Your task to perform on an android device: Show me popular games on the Play Store Image 0: 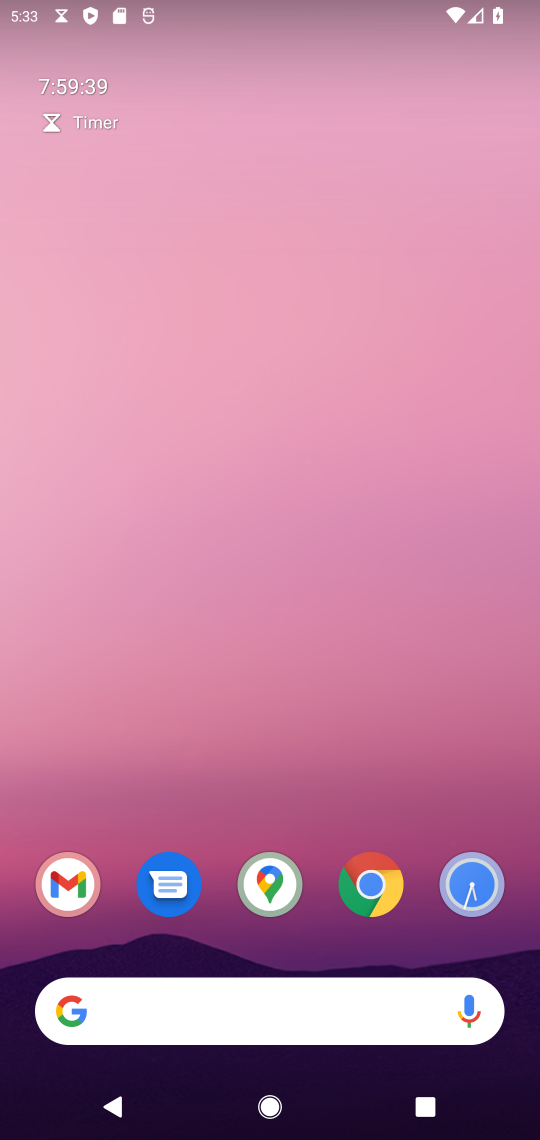
Step 0: drag from (328, 838) to (285, 51)
Your task to perform on an android device: Show me popular games on the Play Store Image 1: 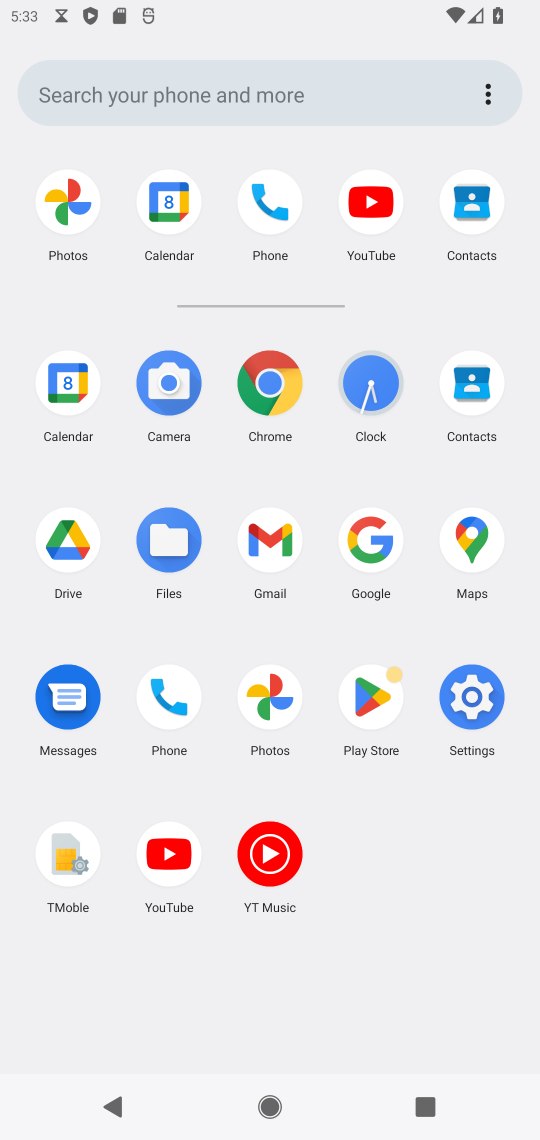
Step 1: click (358, 720)
Your task to perform on an android device: Show me popular games on the Play Store Image 2: 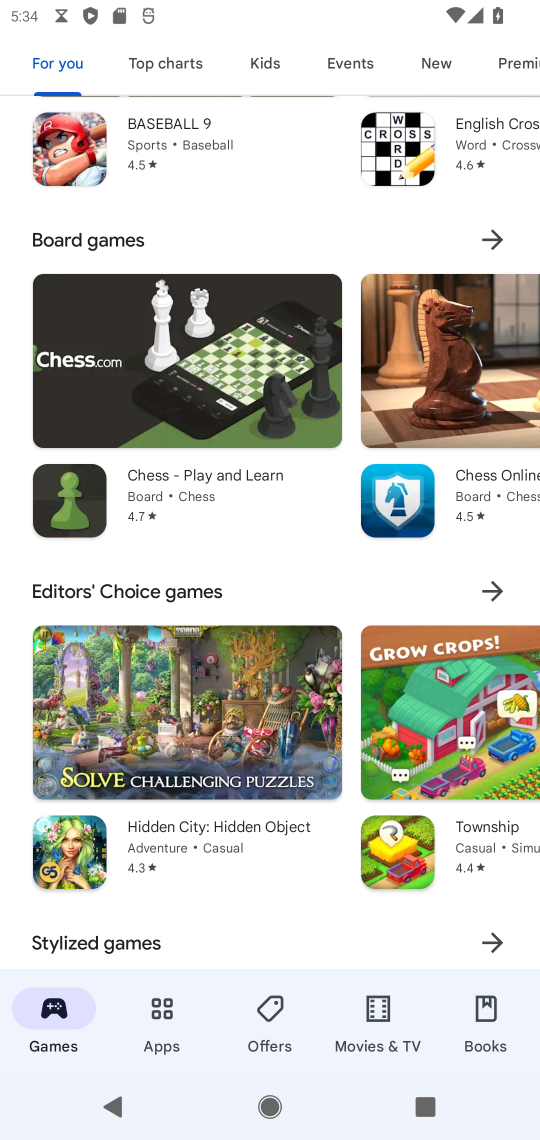
Step 2: drag from (268, 941) to (251, 420)
Your task to perform on an android device: Show me popular games on the Play Store Image 3: 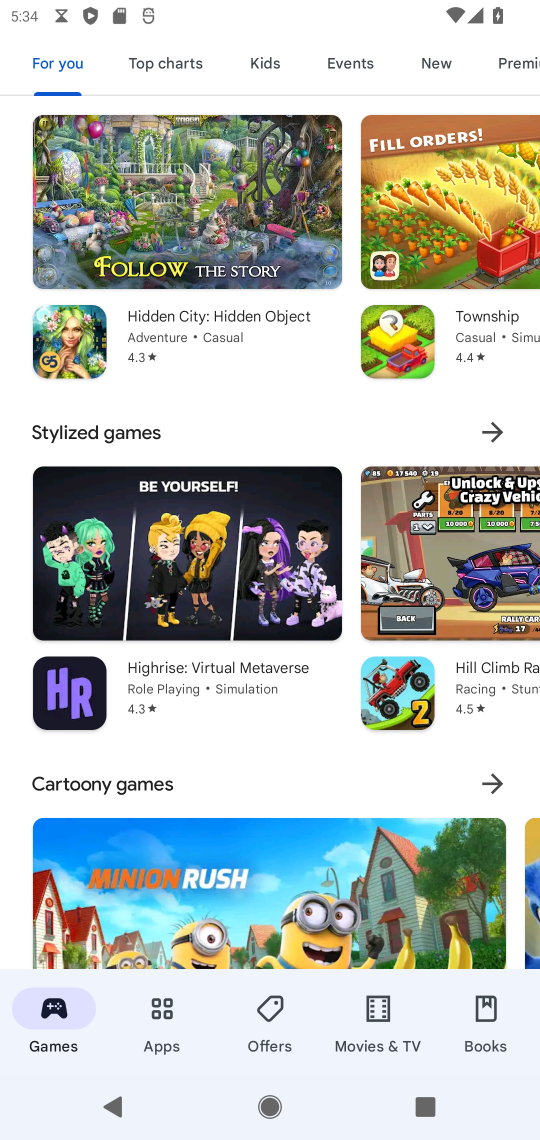
Step 3: drag from (307, 769) to (253, 132)
Your task to perform on an android device: Show me popular games on the Play Store Image 4: 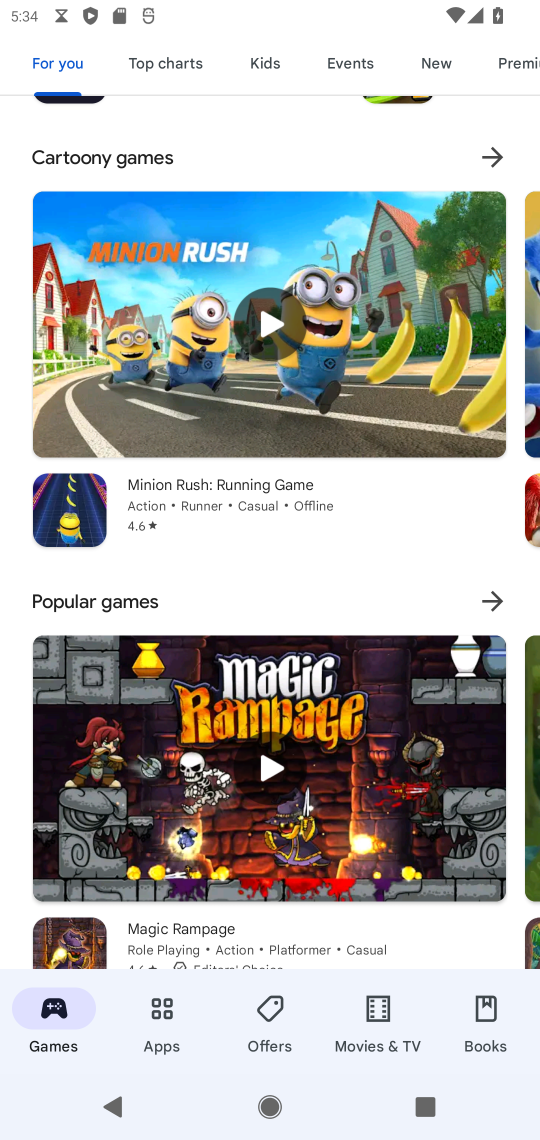
Step 4: click (439, 609)
Your task to perform on an android device: Show me popular games on the Play Store Image 5: 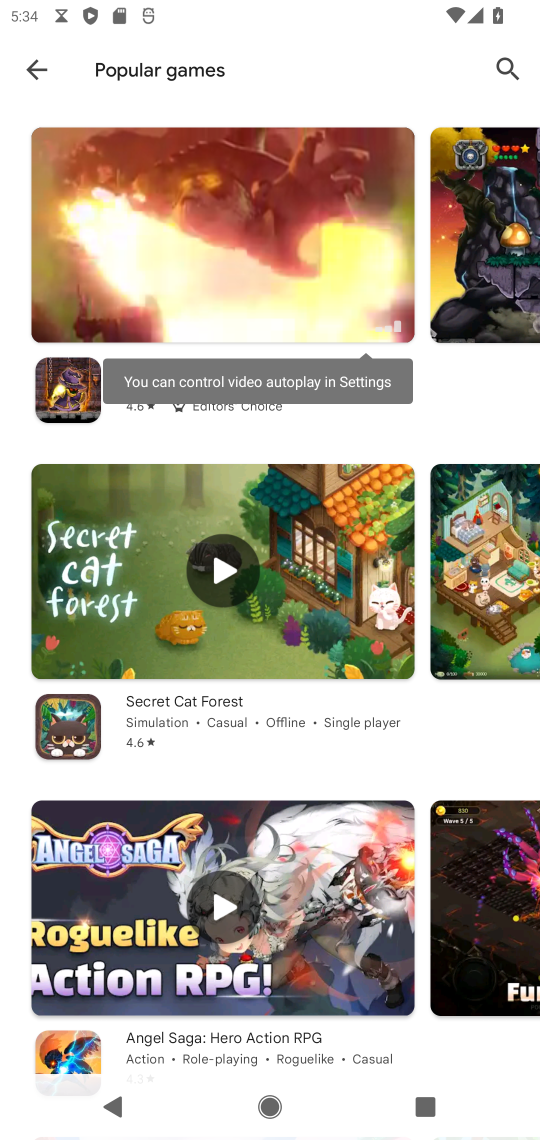
Step 5: task complete